Your task to perform on an android device: Find coffee shops on Maps Image 0: 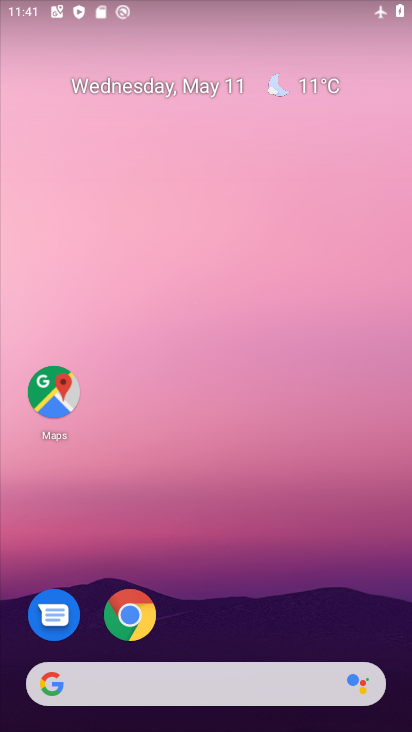
Step 0: click (53, 391)
Your task to perform on an android device: Find coffee shops on Maps Image 1: 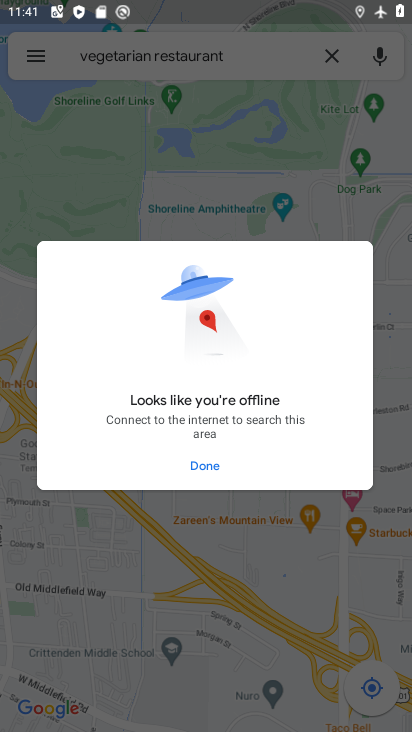
Step 1: click (218, 457)
Your task to perform on an android device: Find coffee shops on Maps Image 2: 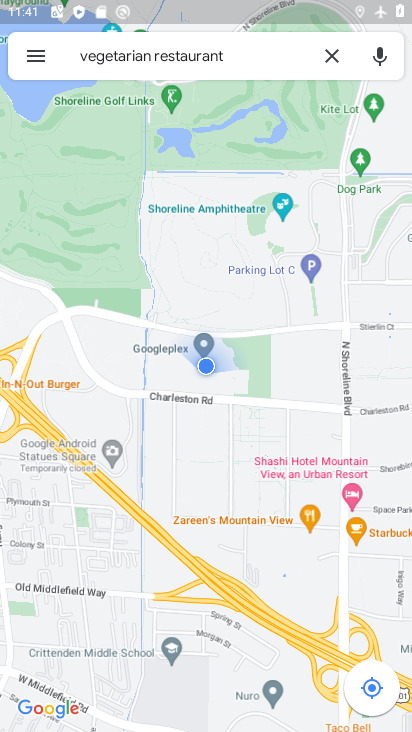
Step 2: click (214, 51)
Your task to perform on an android device: Find coffee shops on Maps Image 3: 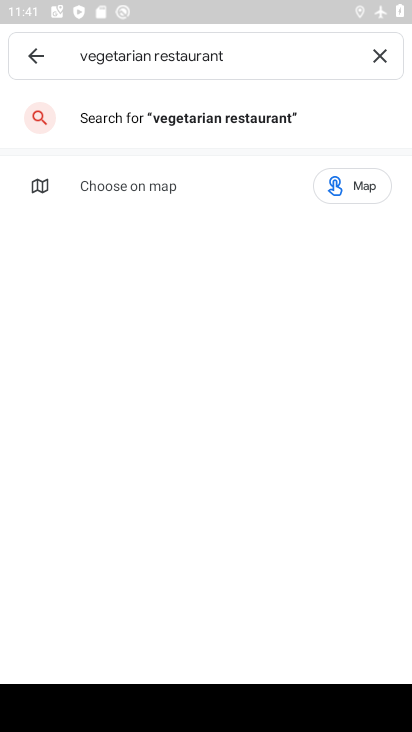
Step 3: click (373, 56)
Your task to perform on an android device: Find coffee shops on Maps Image 4: 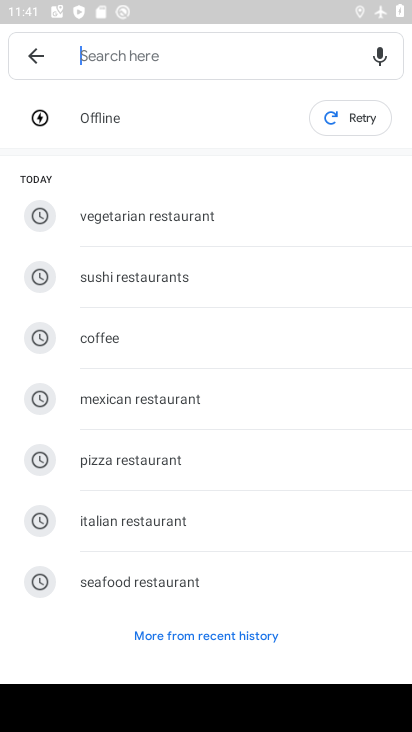
Step 4: type "coffee shops"
Your task to perform on an android device: Find coffee shops on Maps Image 5: 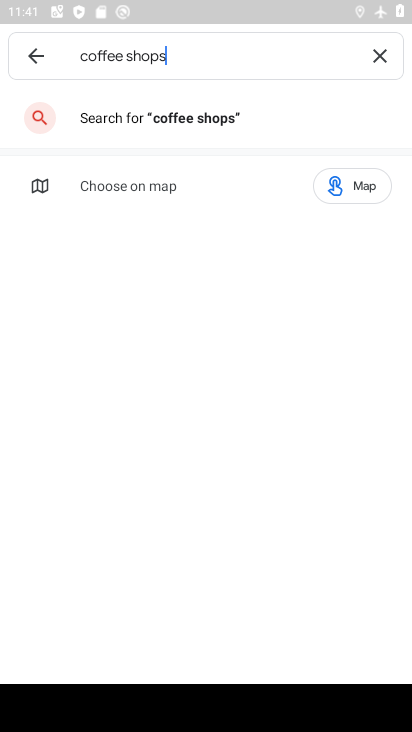
Step 5: click (178, 113)
Your task to perform on an android device: Find coffee shops on Maps Image 6: 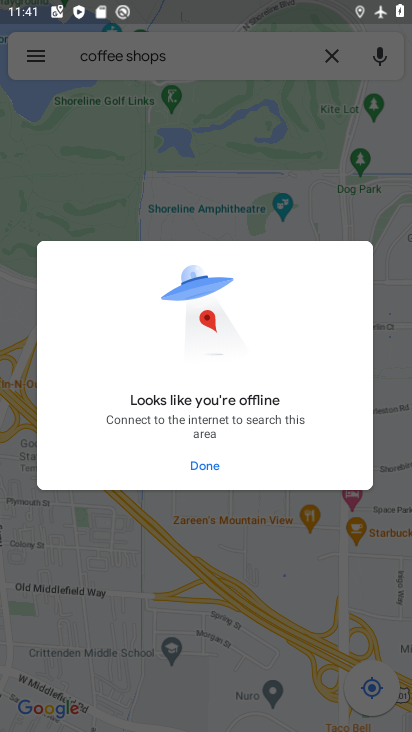
Step 6: task complete